Your task to perform on an android device: Go to privacy settings Image 0: 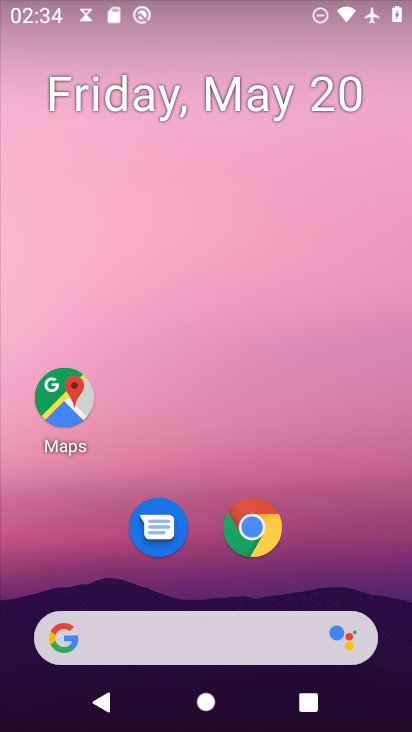
Step 0: press home button
Your task to perform on an android device: Go to privacy settings Image 1: 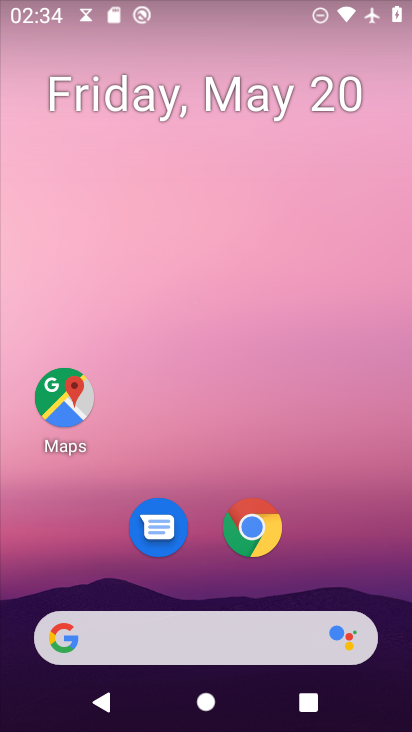
Step 1: drag from (182, 632) to (340, 223)
Your task to perform on an android device: Go to privacy settings Image 2: 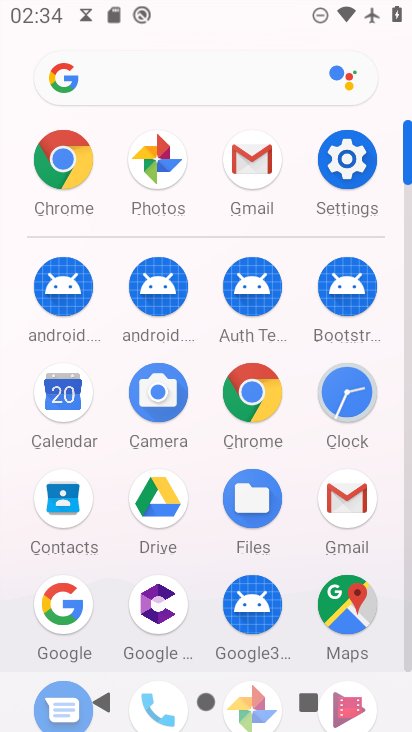
Step 2: click (353, 170)
Your task to perform on an android device: Go to privacy settings Image 3: 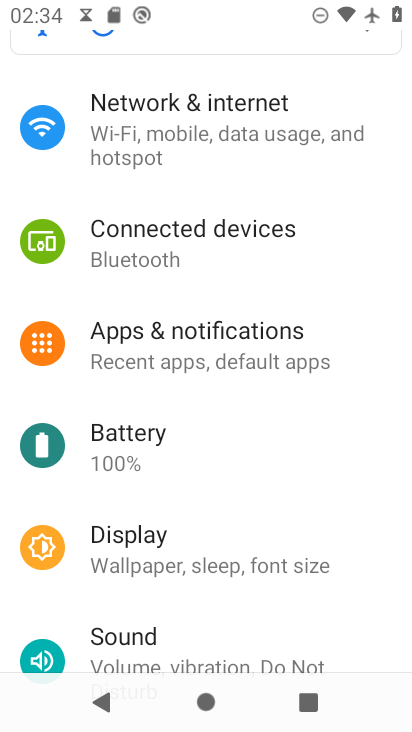
Step 3: drag from (206, 516) to (327, 134)
Your task to perform on an android device: Go to privacy settings Image 4: 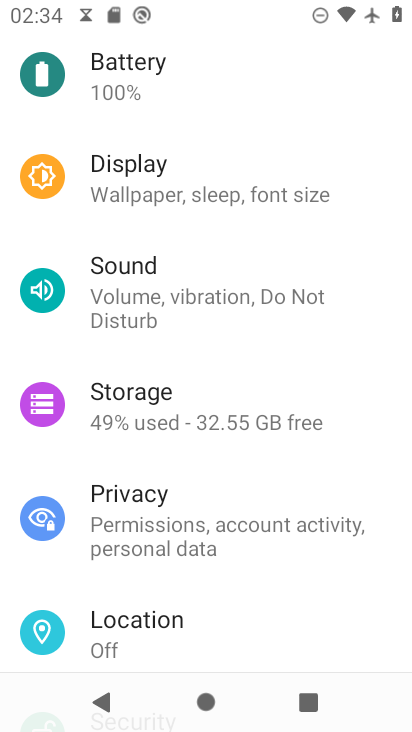
Step 4: click (168, 510)
Your task to perform on an android device: Go to privacy settings Image 5: 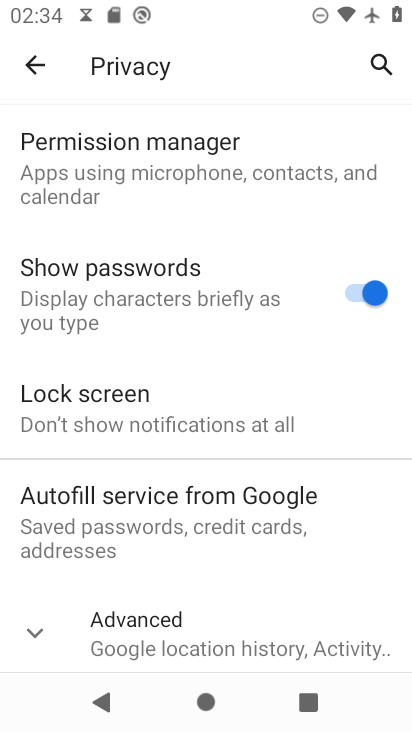
Step 5: task complete